Your task to perform on an android device: snooze an email in the gmail app Image 0: 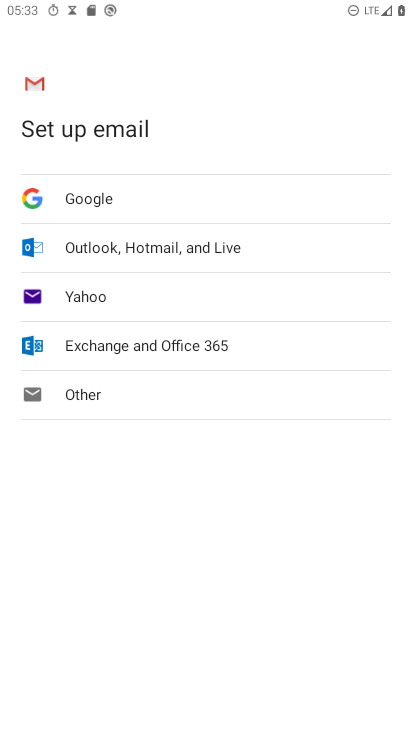
Step 0: press home button
Your task to perform on an android device: snooze an email in the gmail app Image 1: 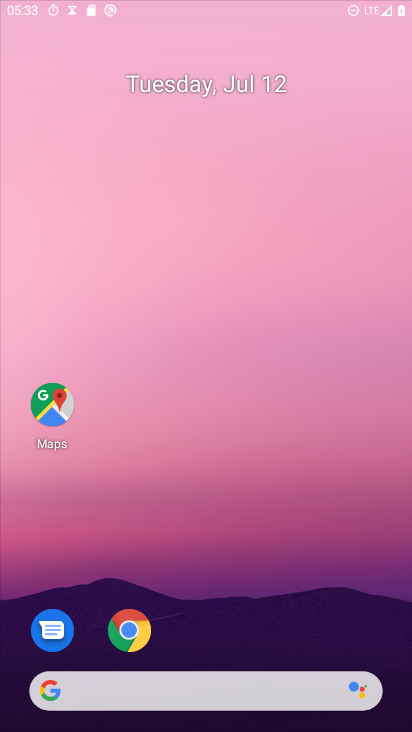
Step 1: drag from (236, 557) to (292, 106)
Your task to perform on an android device: snooze an email in the gmail app Image 2: 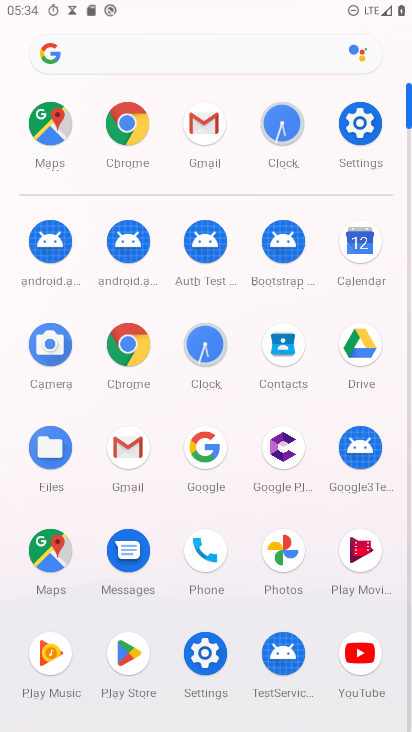
Step 2: click (129, 449)
Your task to perform on an android device: snooze an email in the gmail app Image 3: 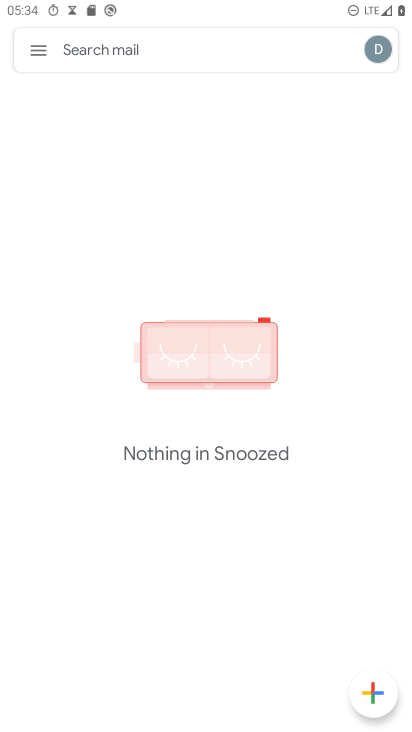
Step 3: task complete